Your task to perform on an android device: View the shopping cart on target.com. Add "apple airpods pro" to the cart on target.com Image 0: 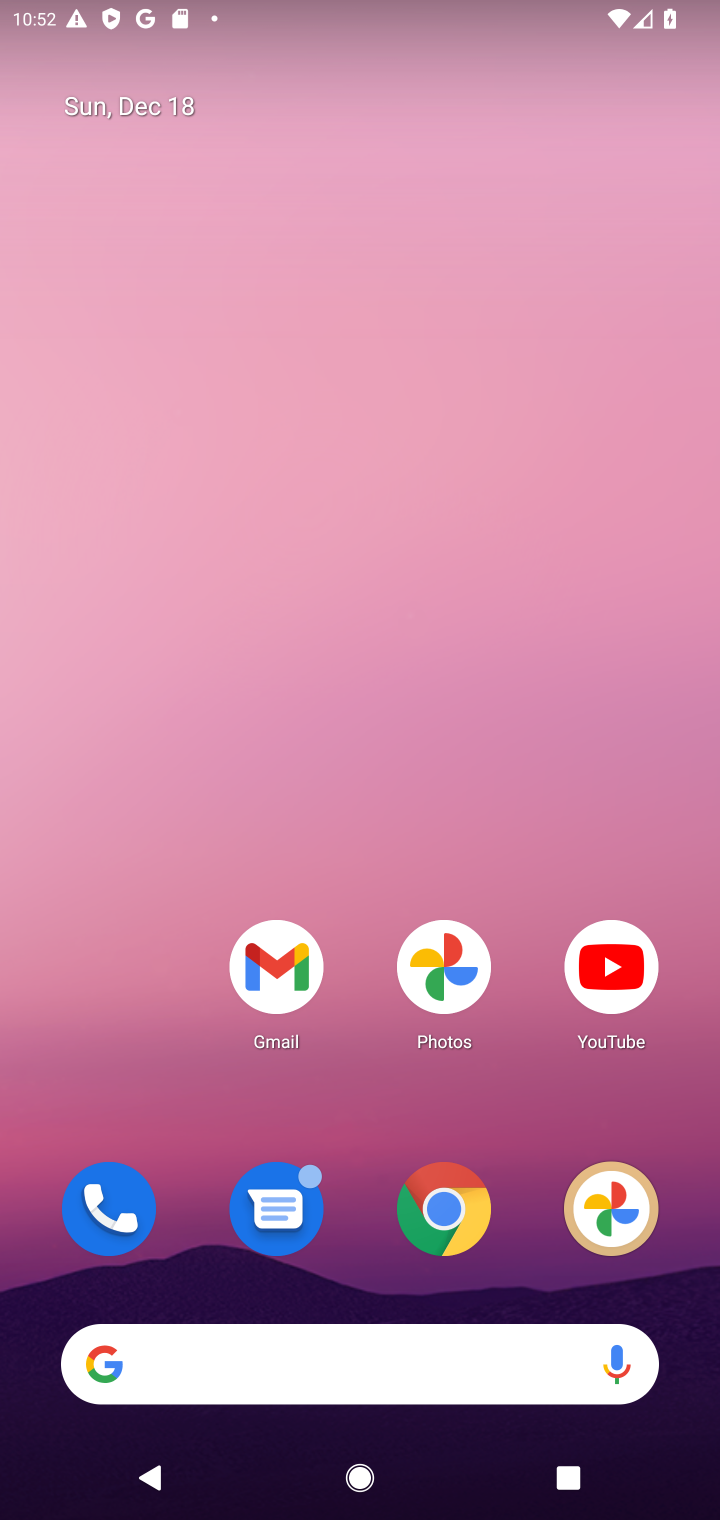
Step 0: click (440, 1207)
Your task to perform on an android device: View the shopping cart on target.com. Add "apple airpods pro" to the cart on target.com Image 1: 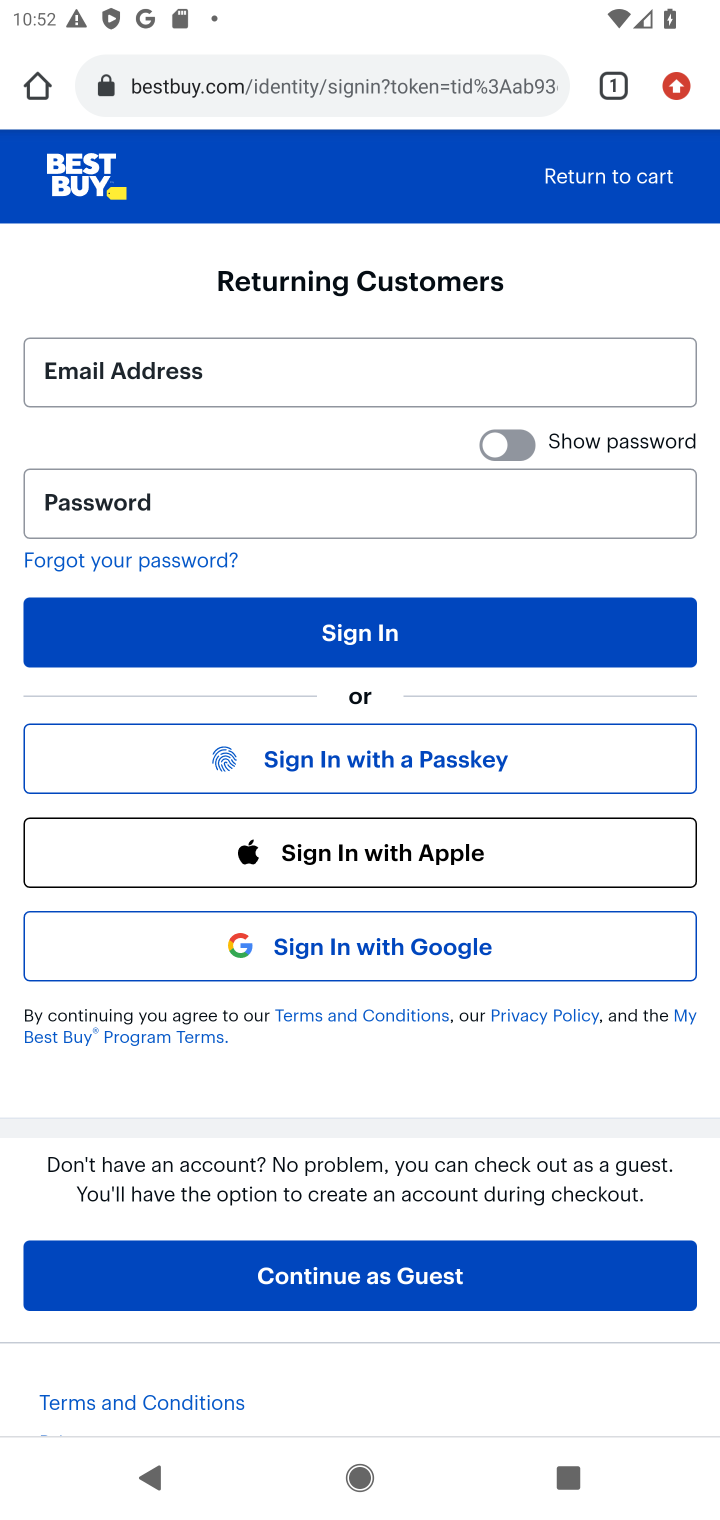
Step 1: click (334, 93)
Your task to perform on an android device: View the shopping cart on target.com. Add "apple airpods pro" to the cart on target.com Image 2: 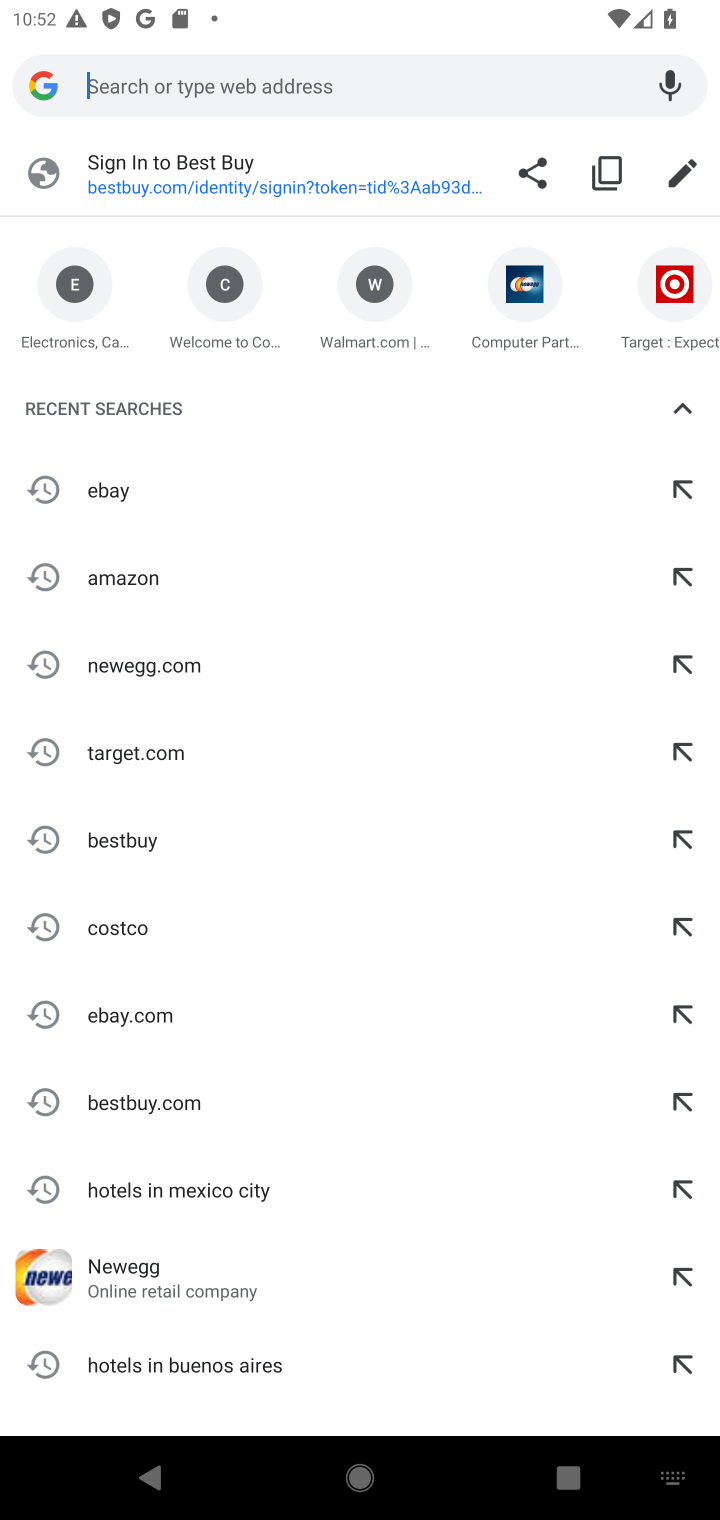
Step 2: click (198, 752)
Your task to perform on an android device: View the shopping cart on target.com. Add "apple airpods pro" to the cart on target.com Image 3: 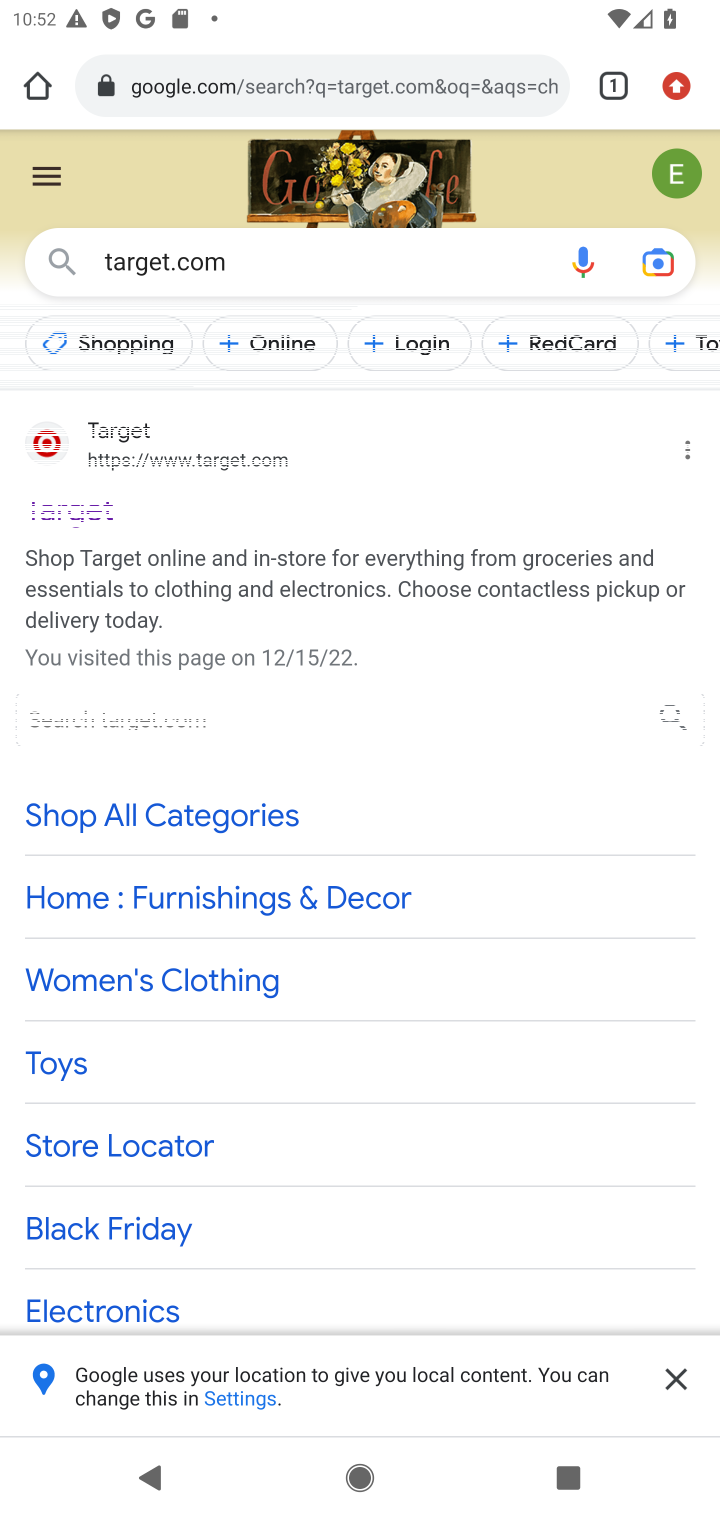
Step 3: click (57, 509)
Your task to perform on an android device: View the shopping cart on target.com. Add "apple airpods pro" to the cart on target.com Image 4: 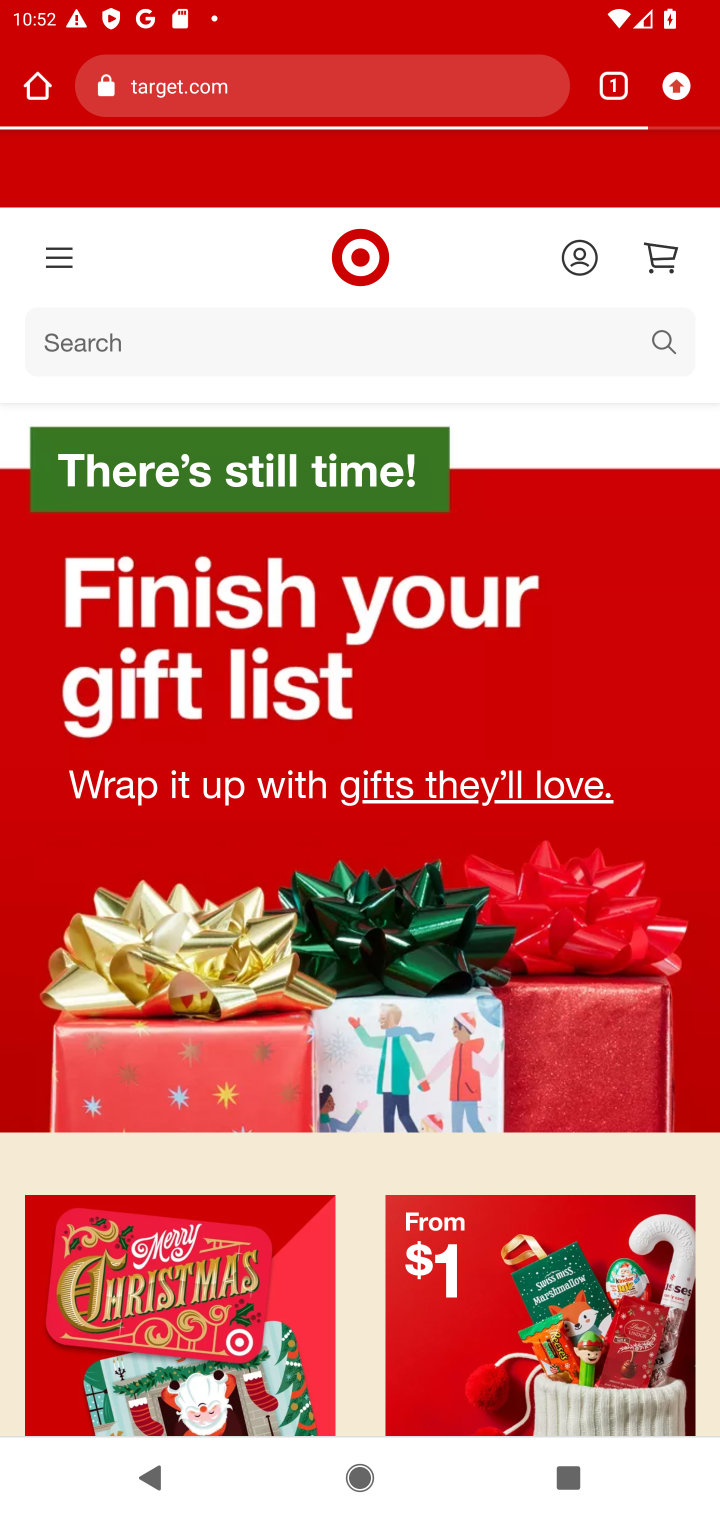
Step 4: click (469, 348)
Your task to perform on an android device: View the shopping cart on target.com. Add "apple airpods pro" to the cart on target.com Image 5: 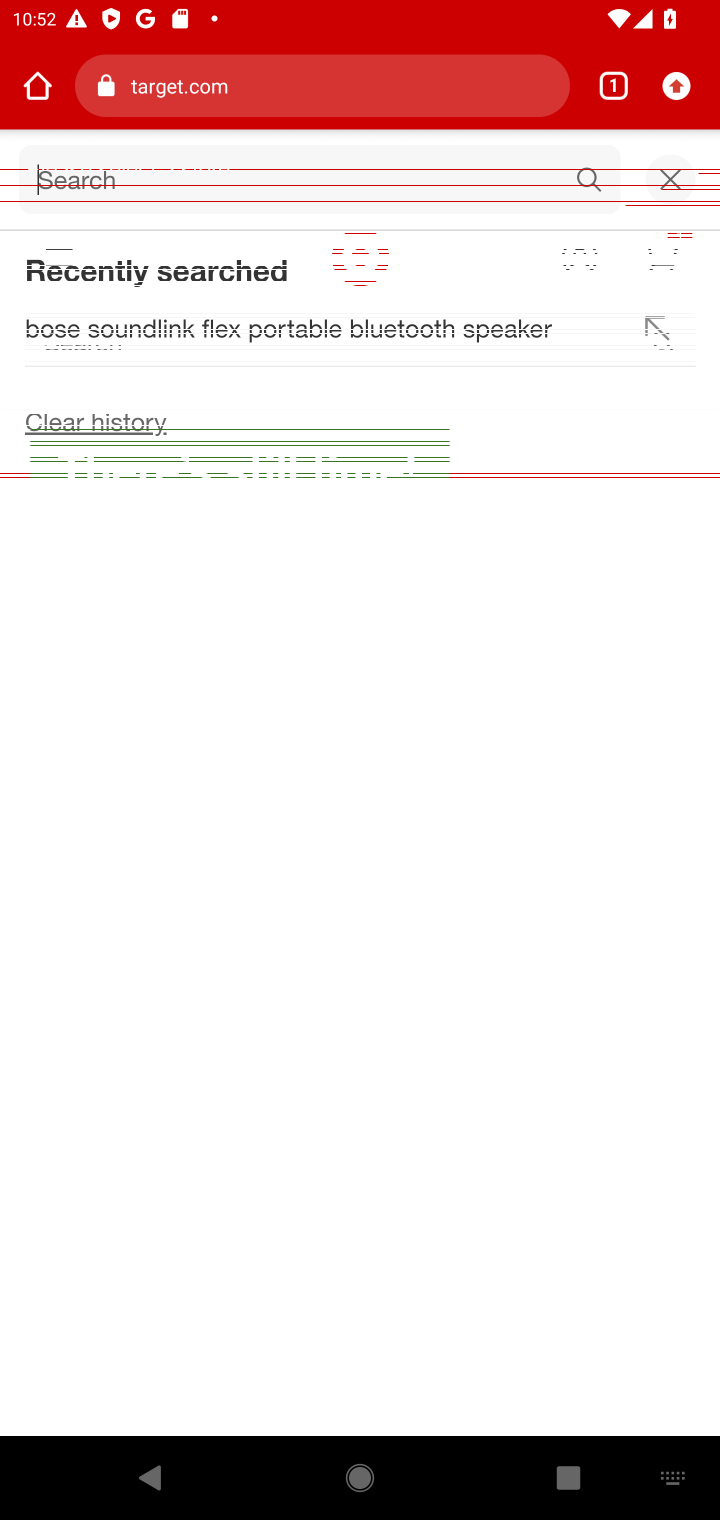
Step 5: type "APPLE AIRPODS PRO"
Your task to perform on an android device: View the shopping cart on target.com. Add "apple airpods pro" to the cart on target.com Image 6: 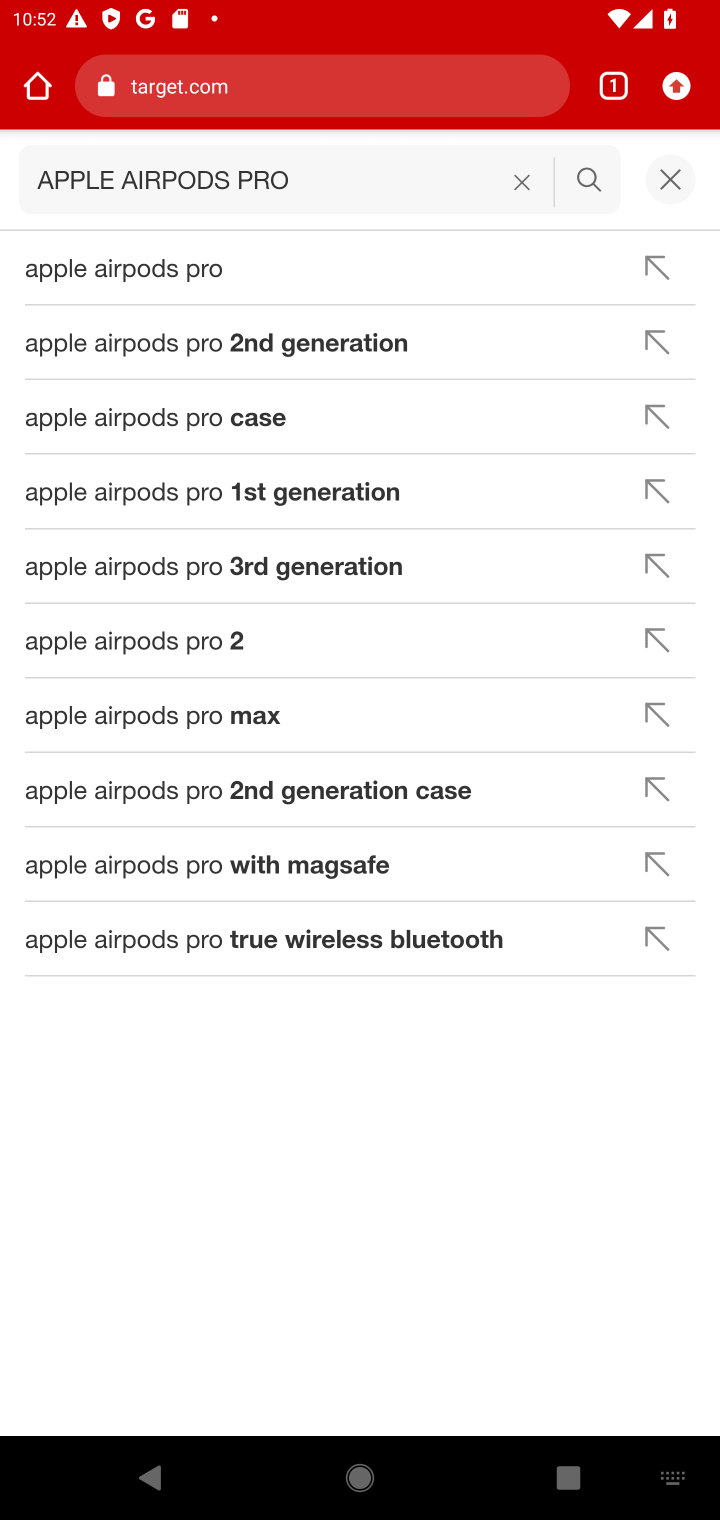
Step 6: click (194, 271)
Your task to perform on an android device: View the shopping cart on target.com. Add "apple airpods pro" to the cart on target.com Image 7: 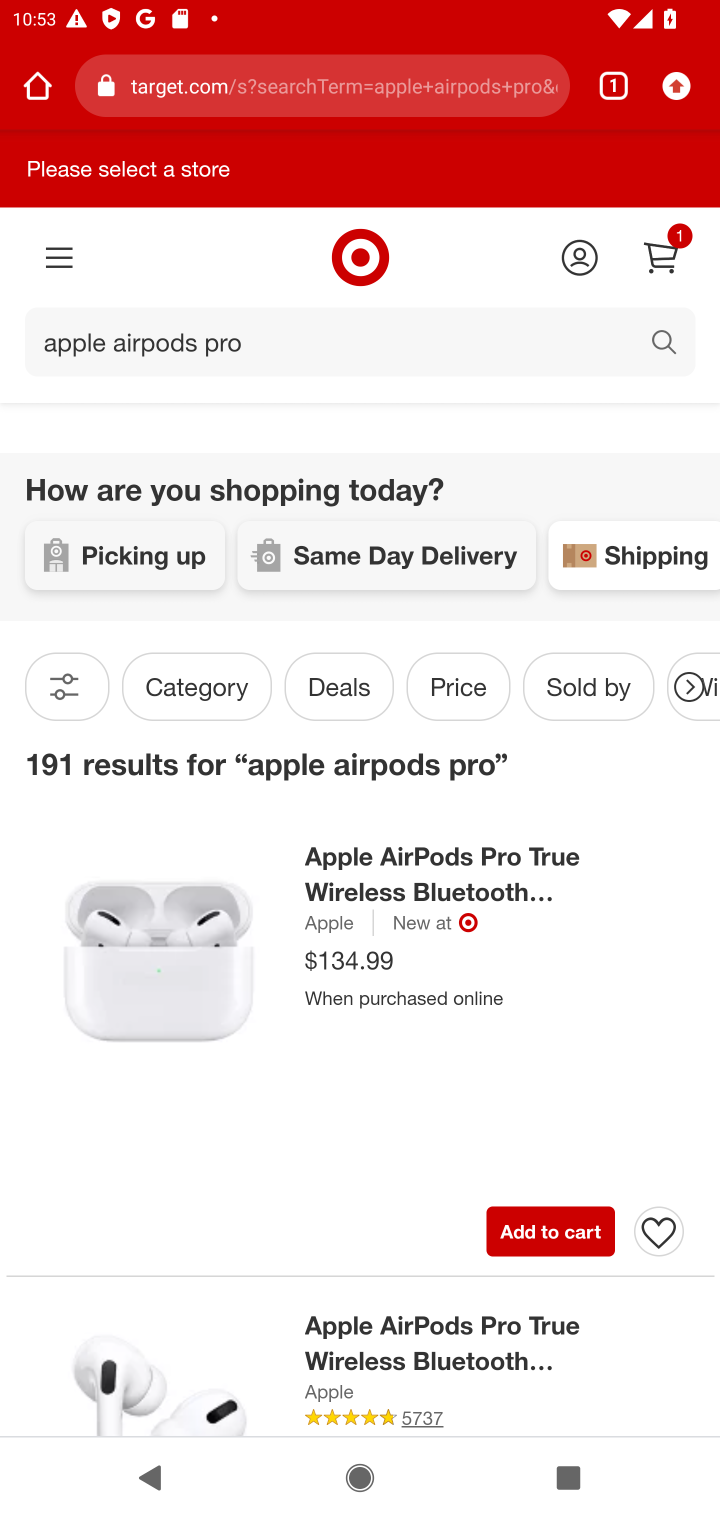
Step 7: click (561, 1229)
Your task to perform on an android device: View the shopping cart on target.com. Add "apple airpods pro" to the cart on target.com Image 8: 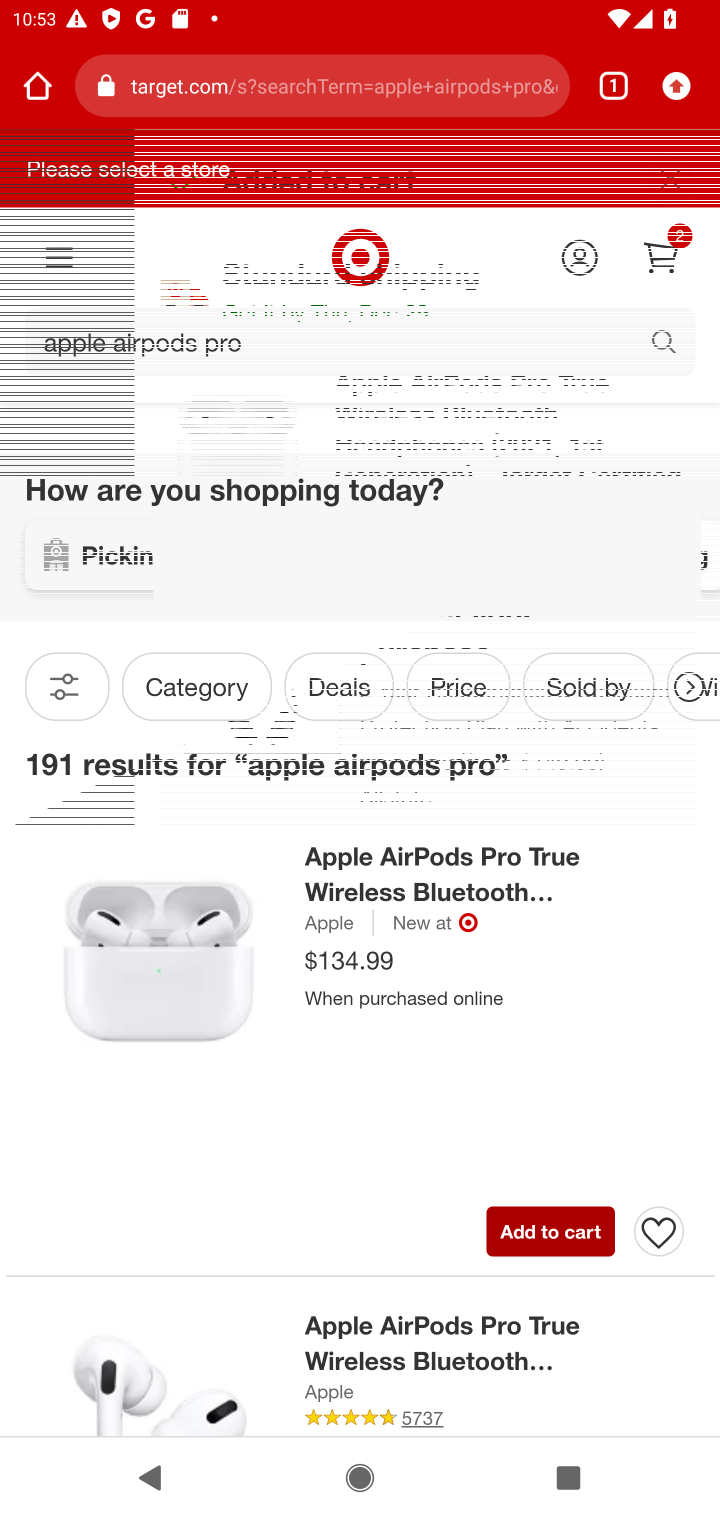
Step 8: click (658, 255)
Your task to perform on an android device: View the shopping cart on target.com. Add "apple airpods pro" to the cart on target.com Image 9: 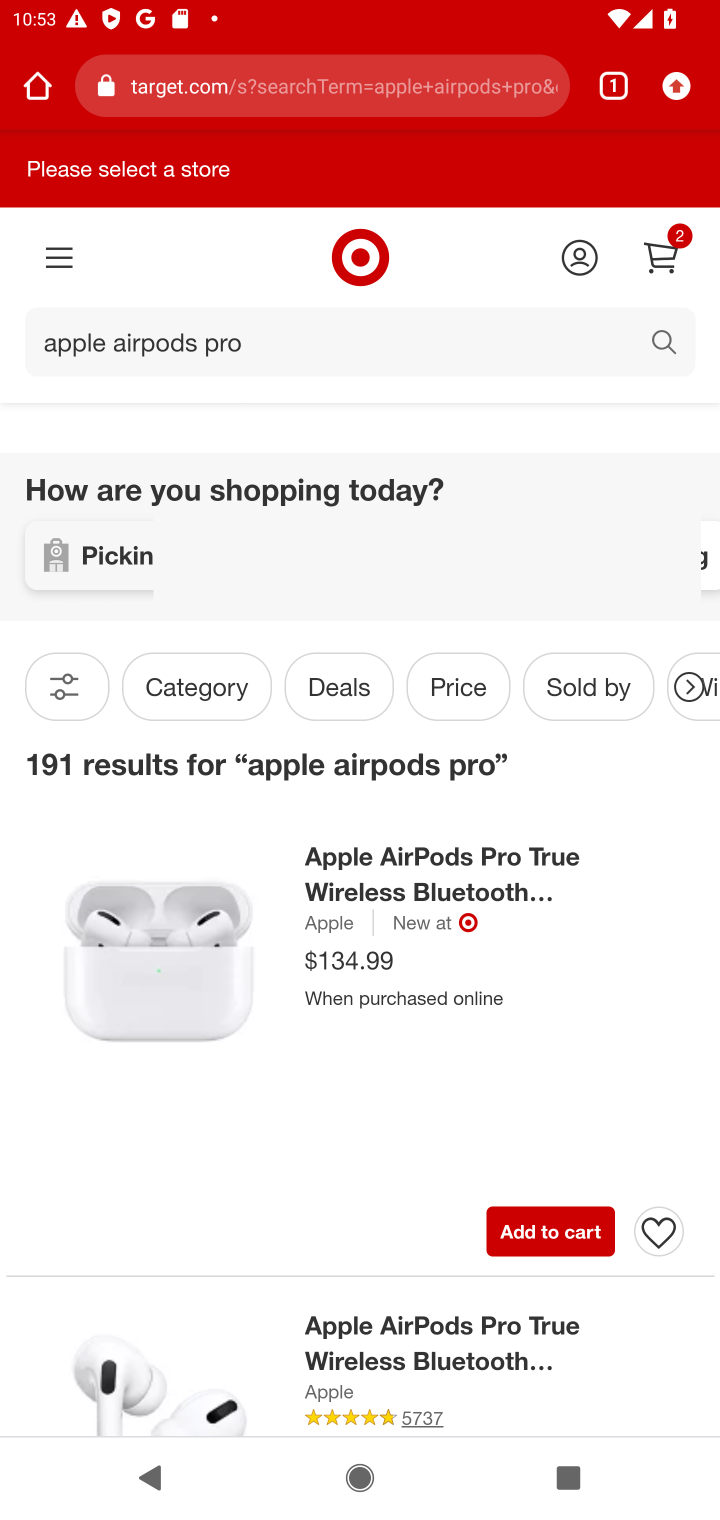
Step 9: click (658, 255)
Your task to perform on an android device: View the shopping cart on target.com. Add "apple airpods pro" to the cart on target.com Image 10: 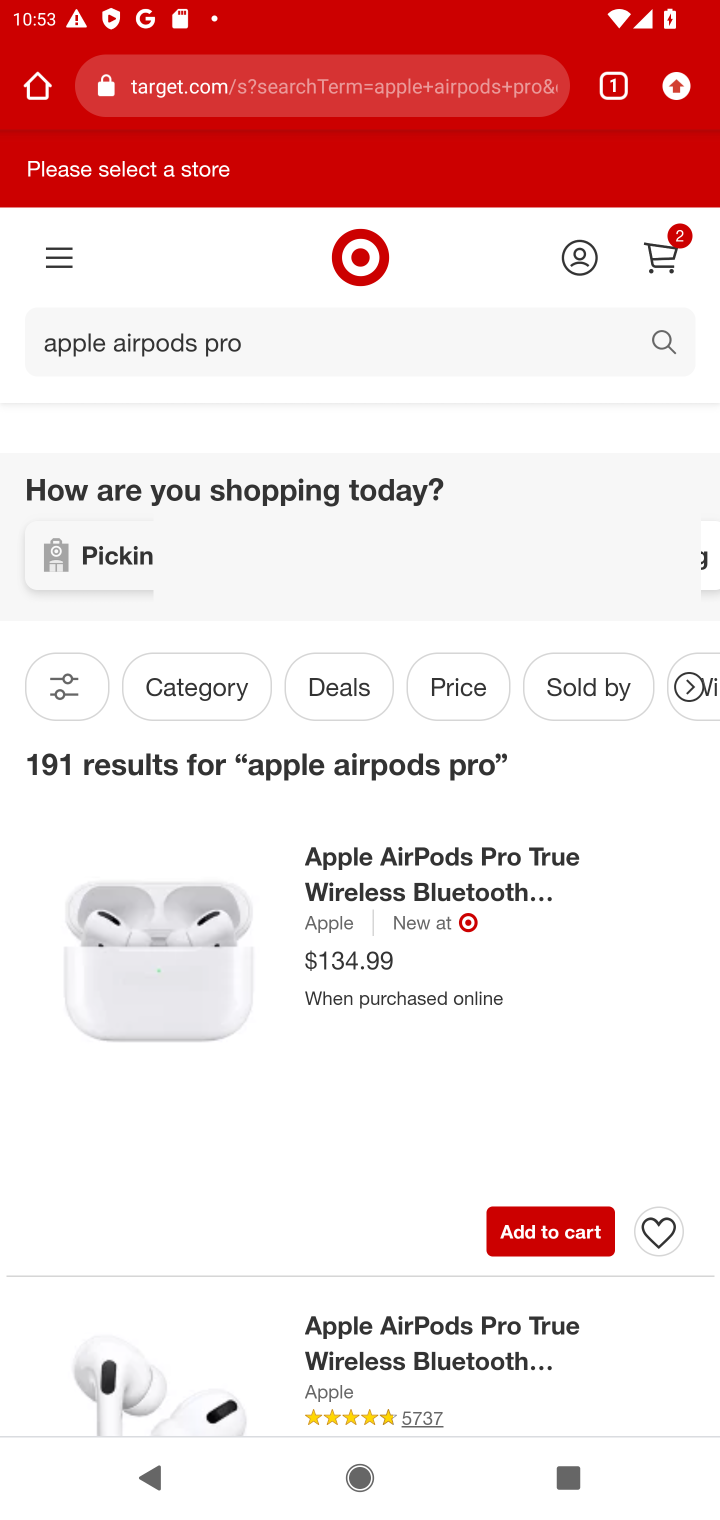
Step 10: click (666, 261)
Your task to perform on an android device: View the shopping cart on target.com. Add "apple airpods pro" to the cart on target.com Image 11: 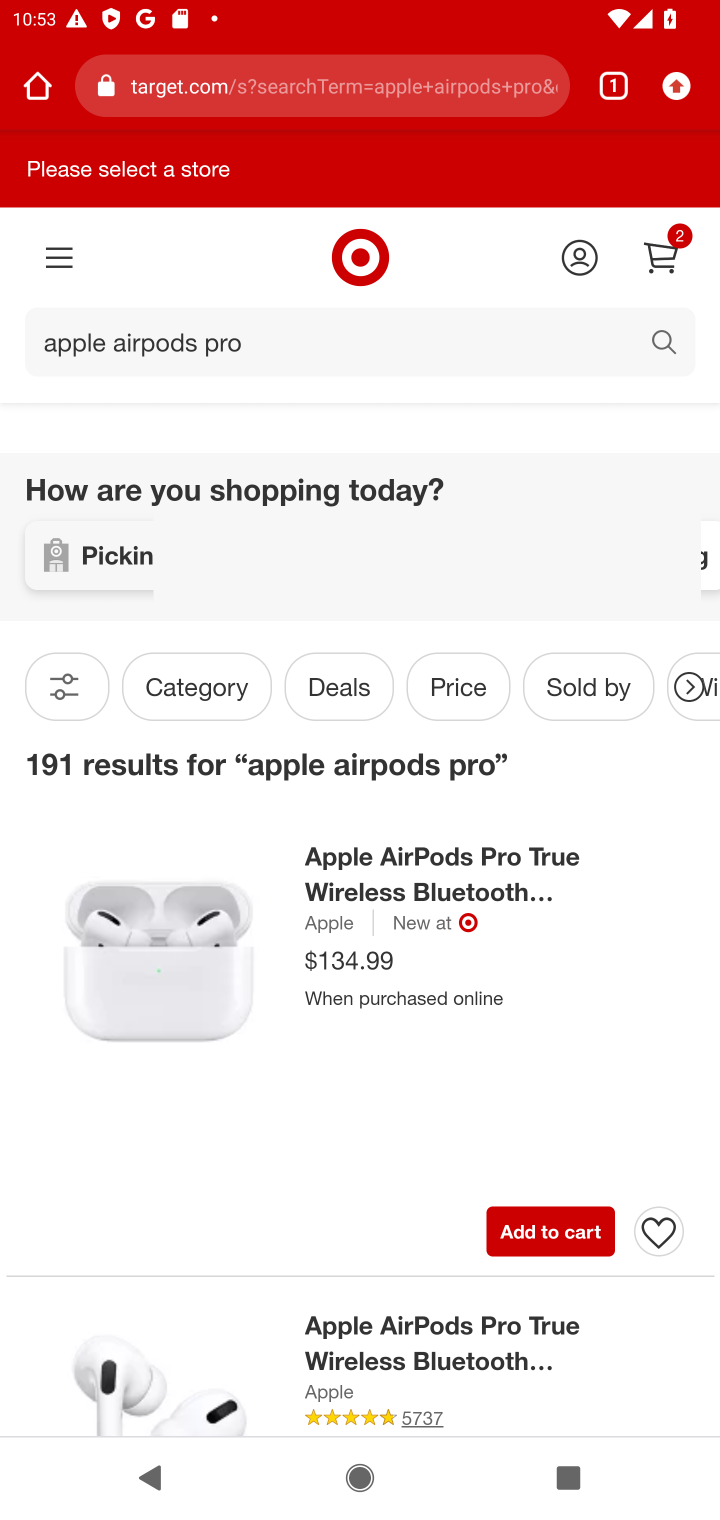
Step 11: click (652, 258)
Your task to perform on an android device: View the shopping cart on target.com. Add "apple airpods pro" to the cart on target.com Image 12: 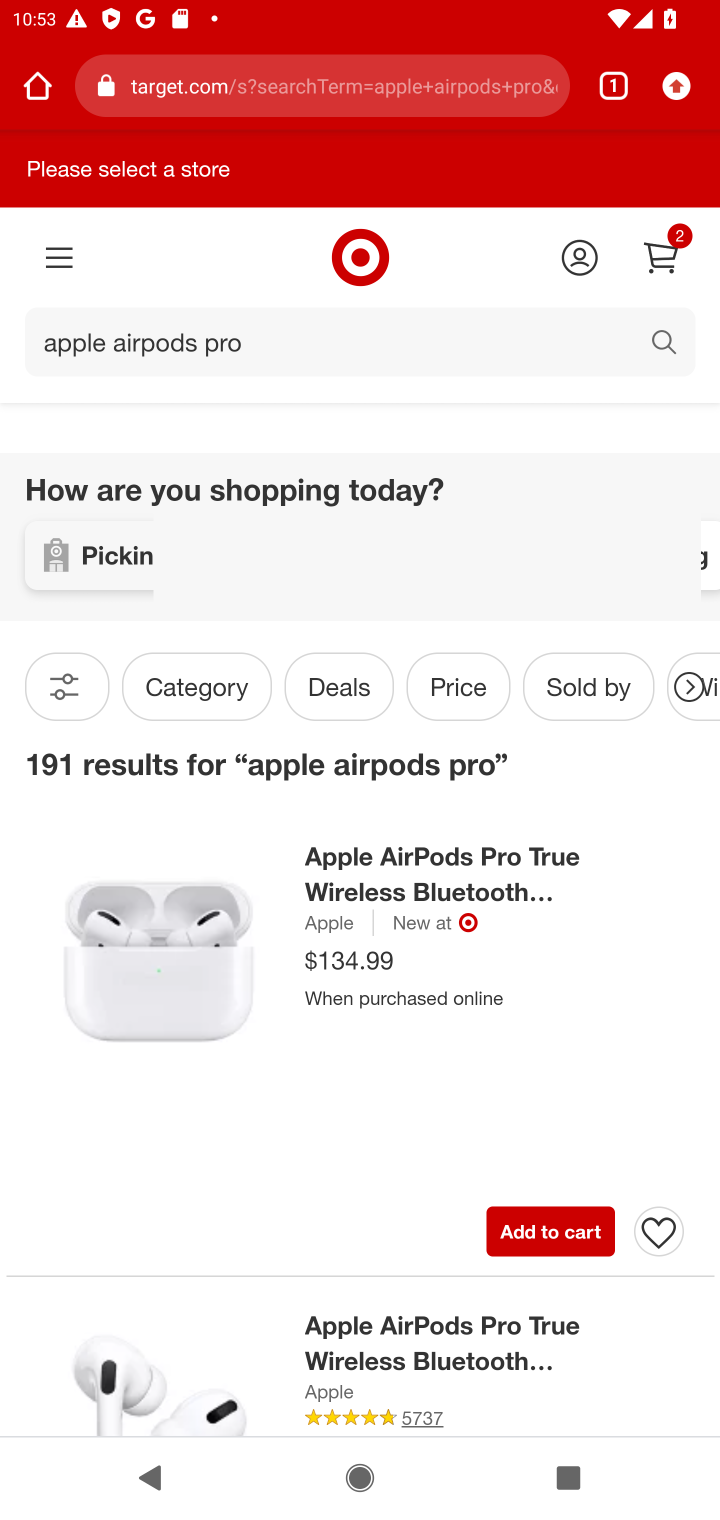
Step 12: task complete